Your task to perform on an android device: turn on data saver in the chrome app Image 0: 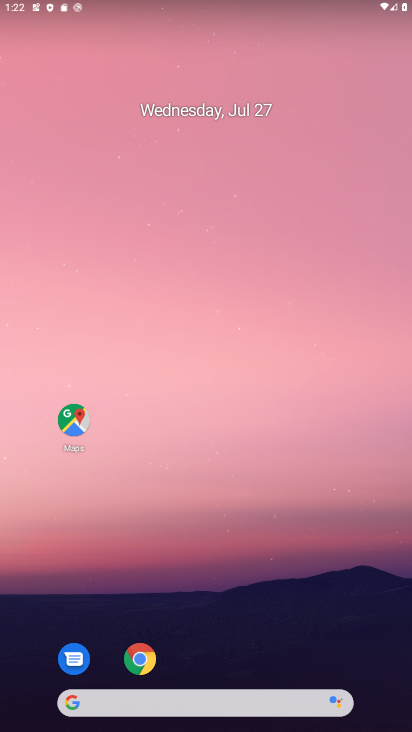
Step 0: drag from (241, 373) to (261, 88)
Your task to perform on an android device: turn on data saver in the chrome app Image 1: 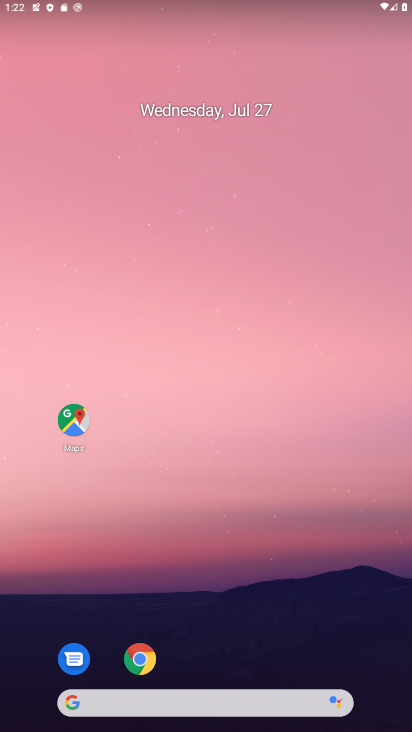
Step 1: drag from (250, 624) to (276, 64)
Your task to perform on an android device: turn on data saver in the chrome app Image 2: 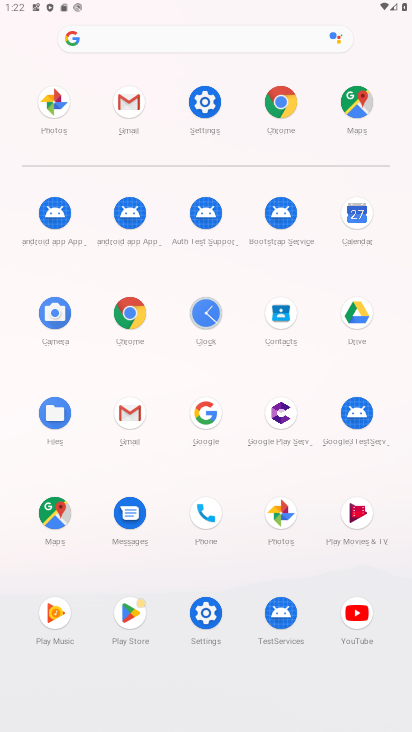
Step 2: click (132, 311)
Your task to perform on an android device: turn on data saver in the chrome app Image 3: 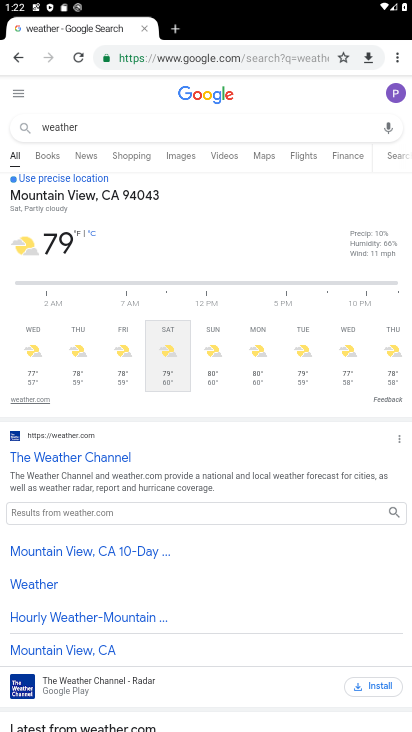
Step 3: drag from (396, 50) to (287, 359)
Your task to perform on an android device: turn on data saver in the chrome app Image 4: 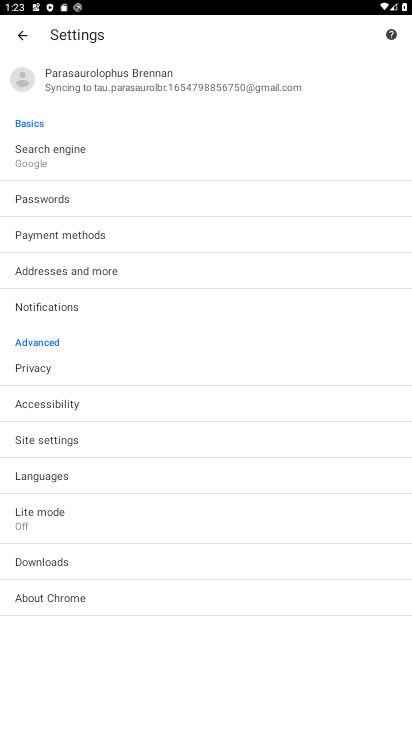
Step 4: click (43, 514)
Your task to perform on an android device: turn on data saver in the chrome app Image 5: 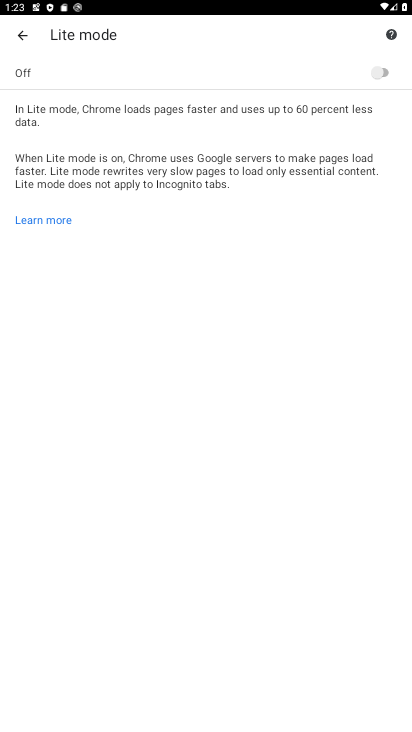
Step 5: click (390, 76)
Your task to perform on an android device: turn on data saver in the chrome app Image 6: 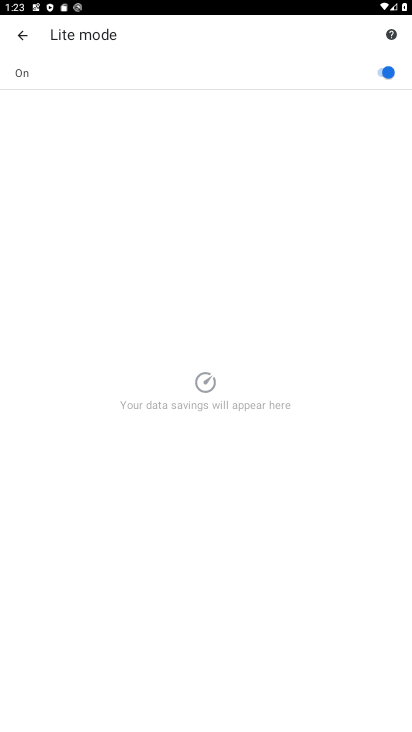
Step 6: task complete